Your task to perform on an android device: open a bookmark in the chrome app Image 0: 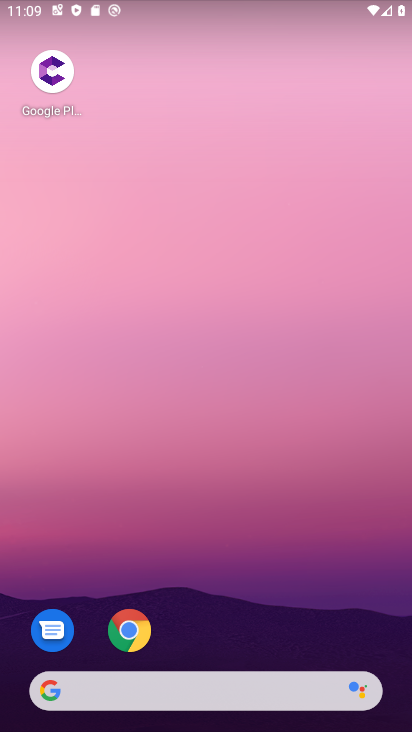
Step 0: click (143, 639)
Your task to perform on an android device: open a bookmark in the chrome app Image 1: 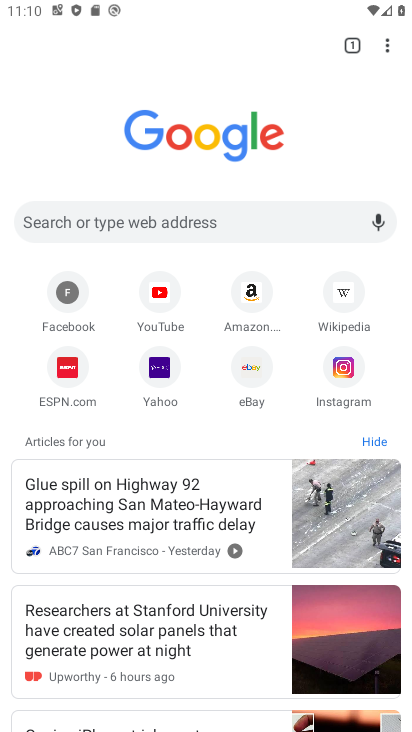
Step 1: click (381, 63)
Your task to perform on an android device: open a bookmark in the chrome app Image 2: 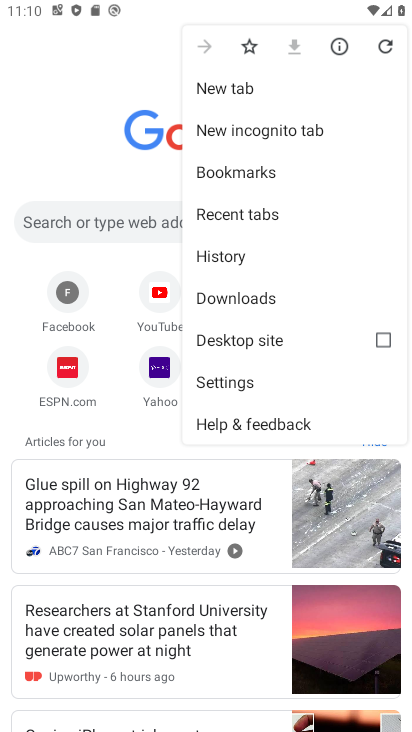
Step 2: click (333, 169)
Your task to perform on an android device: open a bookmark in the chrome app Image 3: 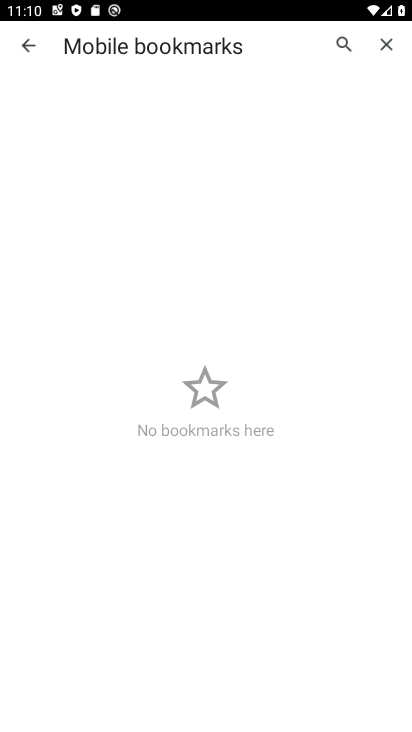
Step 3: task complete